Your task to perform on an android device: turn off wifi Image 0: 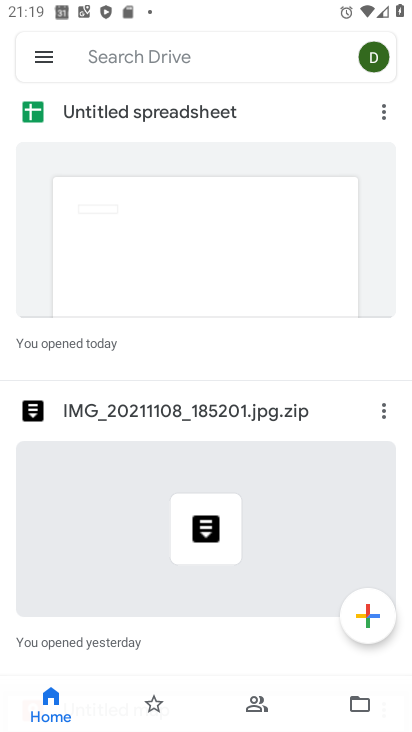
Step 0: drag from (287, 3) to (308, 459)
Your task to perform on an android device: turn off wifi Image 1: 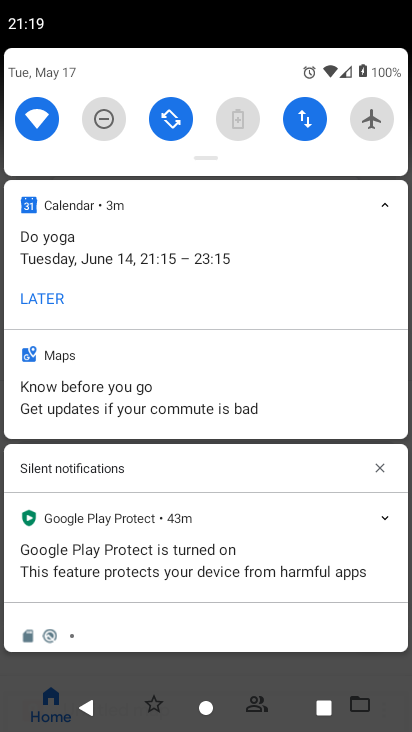
Step 1: click (37, 122)
Your task to perform on an android device: turn off wifi Image 2: 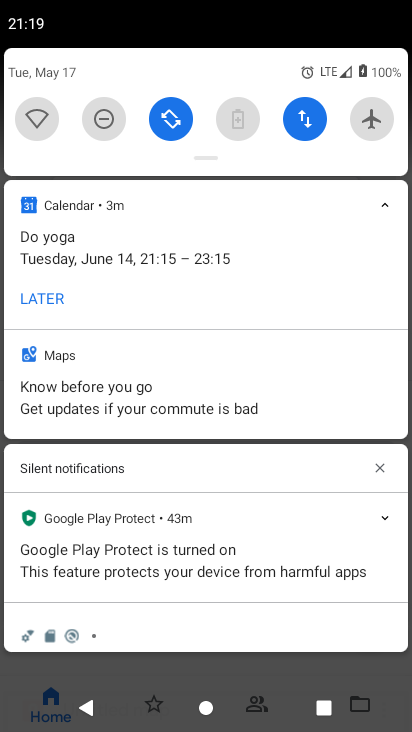
Step 2: task complete